Your task to perform on an android device: Show the shopping cart on costco.com. Search for "razer blade" on costco.com, select the first entry, add it to the cart, then select checkout. Image 0: 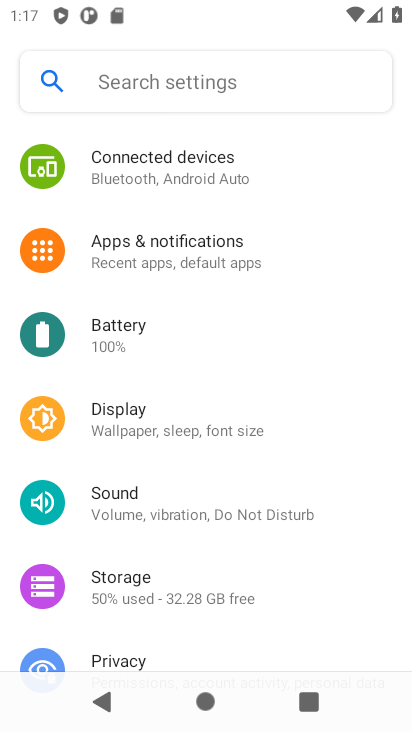
Step 0: press home button
Your task to perform on an android device: Show the shopping cart on costco.com. Search for "razer blade" on costco.com, select the first entry, add it to the cart, then select checkout. Image 1: 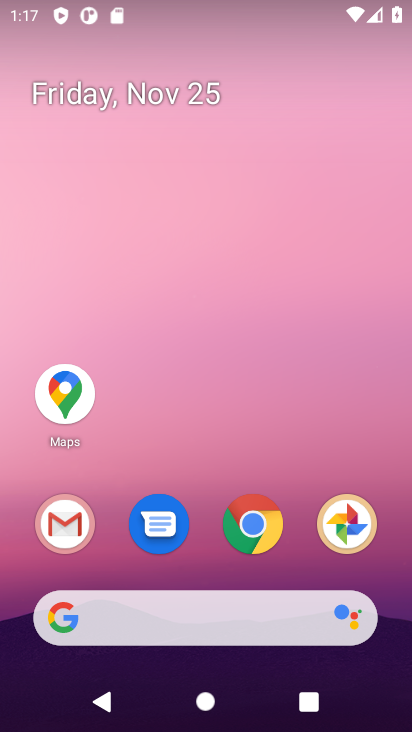
Step 1: click (257, 530)
Your task to perform on an android device: Show the shopping cart on costco.com. Search for "razer blade" on costco.com, select the first entry, add it to the cart, then select checkout. Image 2: 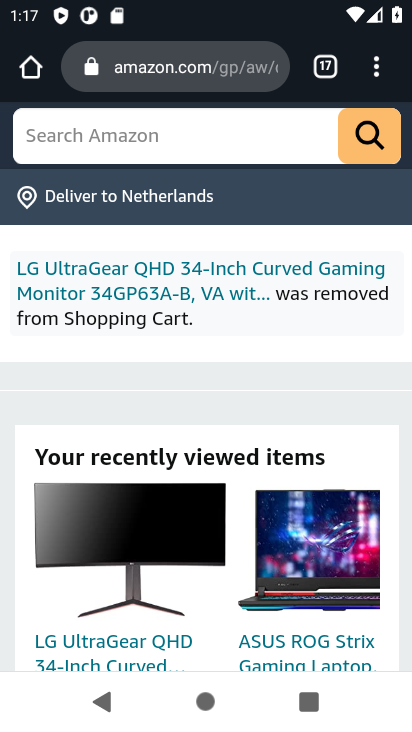
Step 2: click (157, 71)
Your task to perform on an android device: Show the shopping cart on costco.com. Search for "razer blade" on costco.com, select the first entry, add it to the cart, then select checkout. Image 3: 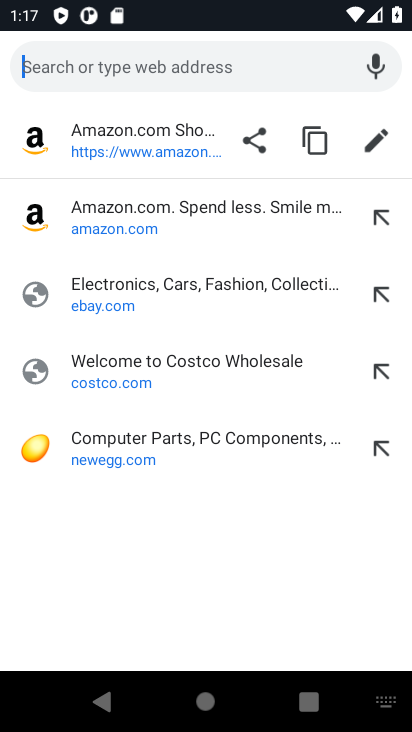
Step 3: click (99, 370)
Your task to perform on an android device: Show the shopping cart on costco.com. Search for "razer blade" on costco.com, select the first entry, add it to the cart, then select checkout. Image 4: 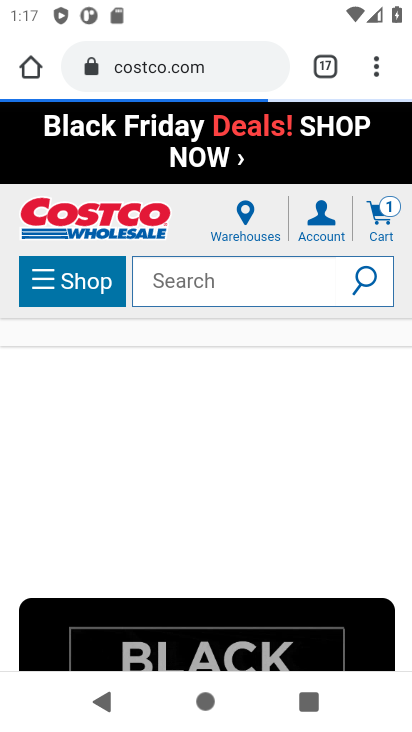
Step 4: click (377, 211)
Your task to perform on an android device: Show the shopping cart on costco.com. Search for "razer blade" on costco.com, select the first entry, add it to the cart, then select checkout. Image 5: 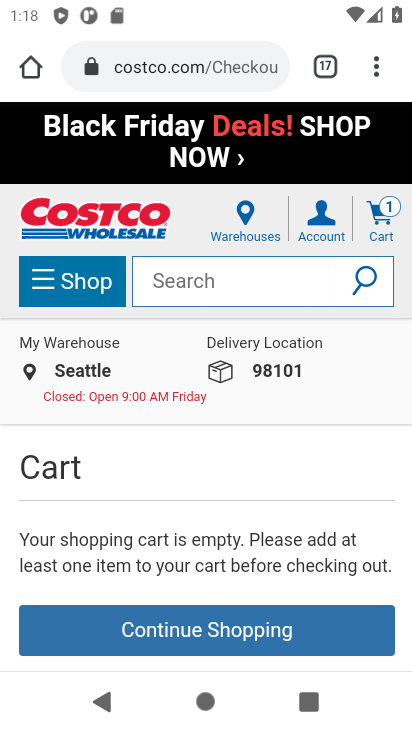
Step 5: click (169, 288)
Your task to perform on an android device: Show the shopping cart on costco.com. Search for "razer blade" on costco.com, select the first entry, add it to the cart, then select checkout. Image 6: 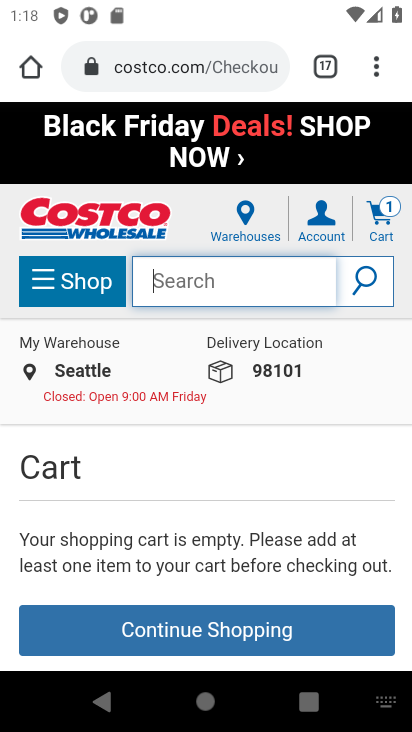
Step 6: type "razer blade"
Your task to perform on an android device: Show the shopping cart on costco.com. Search for "razer blade" on costco.com, select the first entry, add it to the cart, then select checkout. Image 7: 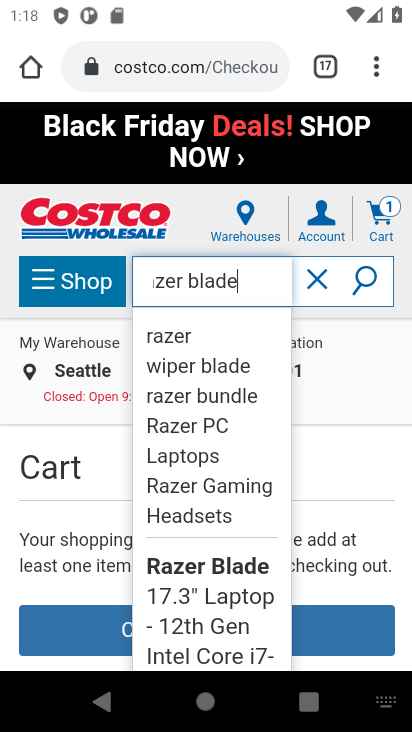
Step 7: click (371, 278)
Your task to perform on an android device: Show the shopping cart on costco.com. Search for "razer blade" on costco.com, select the first entry, add it to the cart, then select checkout. Image 8: 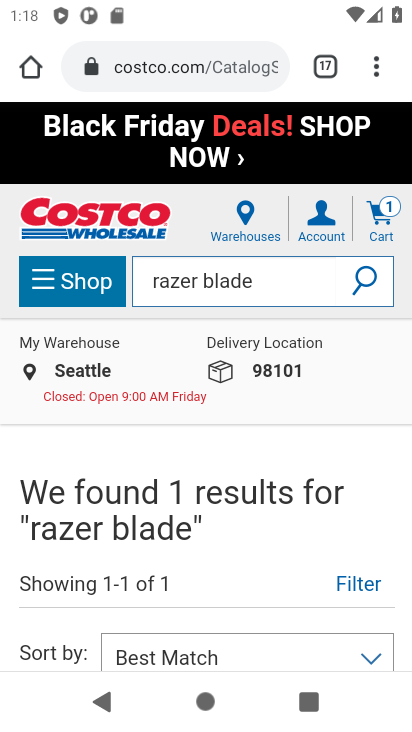
Step 8: drag from (235, 532) to (264, 172)
Your task to perform on an android device: Show the shopping cart on costco.com. Search for "razer blade" on costco.com, select the first entry, add it to the cart, then select checkout. Image 9: 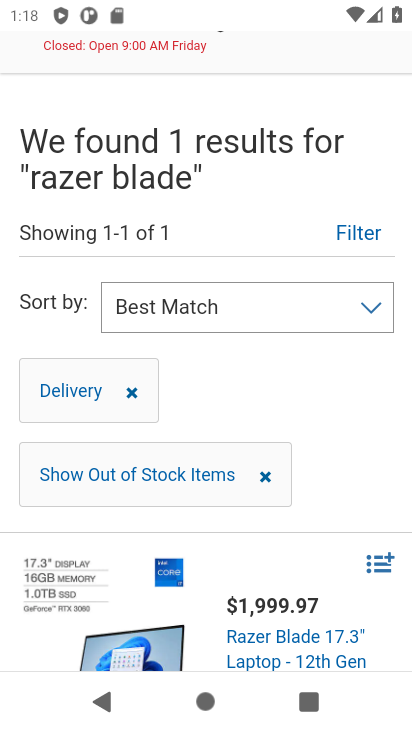
Step 9: drag from (311, 518) to (306, 321)
Your task to perform on an android device: Show the shopping cart on costco.com. Search for "razer blade" on costco.com, select the first entry, add it to the cart, then select checkout. Image 10: 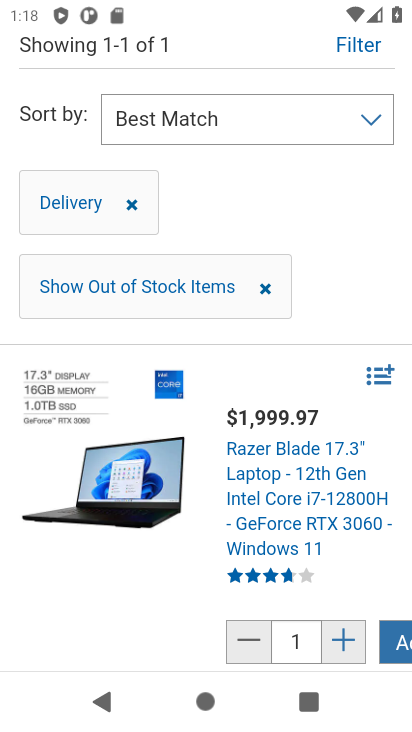
Step 10: click (396, 648)
Your task to perform on an android device: Show the shopping cart on costco.com. Search for "razer blade" on costco.com, select the first entry, add it to the cart, then select checkout. Image 11: 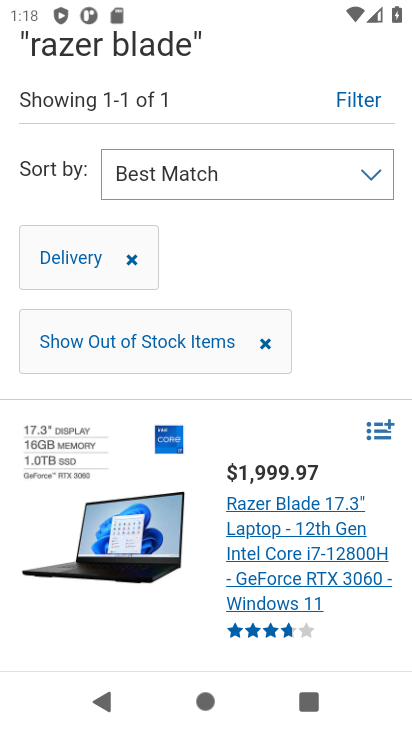
Step 11: drag from (327, 322) to (290, 661)
Your task to perform on an android device: Show the shopping cart on costco.com. Search for "razer blade" on costco.com, select the first entry, add it to the cart, then select checkout. Image 12: 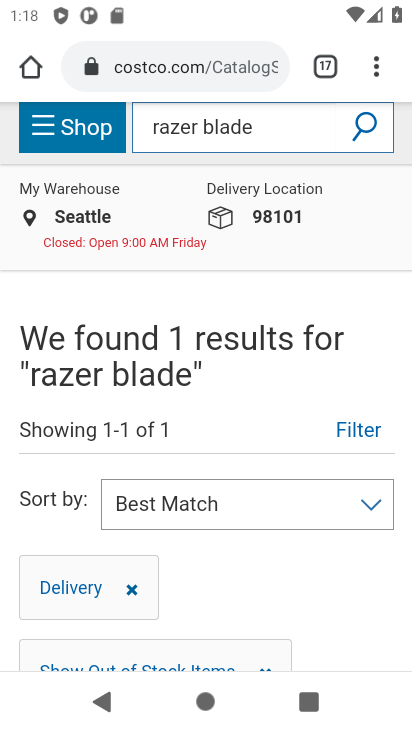
Step 12: drag from (362, 249) to (308, 519)
Your task to perform on an android device: Show the shopping cart on costco.com. Search for "razer blade" on costco.com, select the first entry, add it to the cart, then select checkout. Image 13: 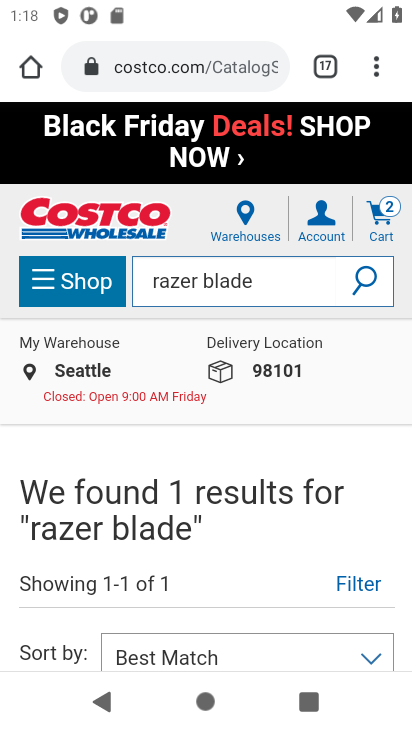
Step 13: click (380, 230)
Your task to perform on an android device: Show the shopping cart on costco.com. Search for "razer blade" on costco.com, select the first entry, add it to the cart, then select checkout. Image 14: 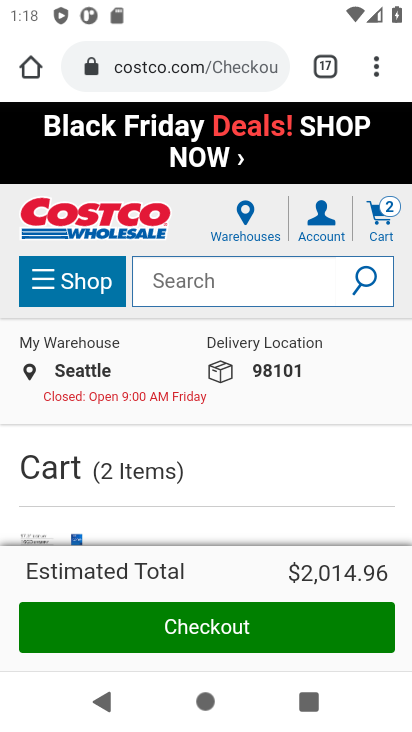
Step 14: click (201, 621)
Your task to perform on an android device: Show the shopping cart on costco.com. Search for "razer blade" on costco.com, select the first entry, add it to the cart, then select checkout. Image 15: 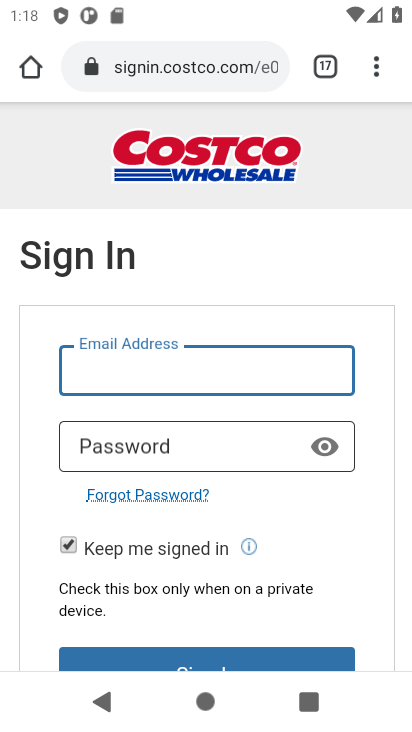
Step 15: task complete